Your task to perform on an android device: When is my next meeting? Image 0: 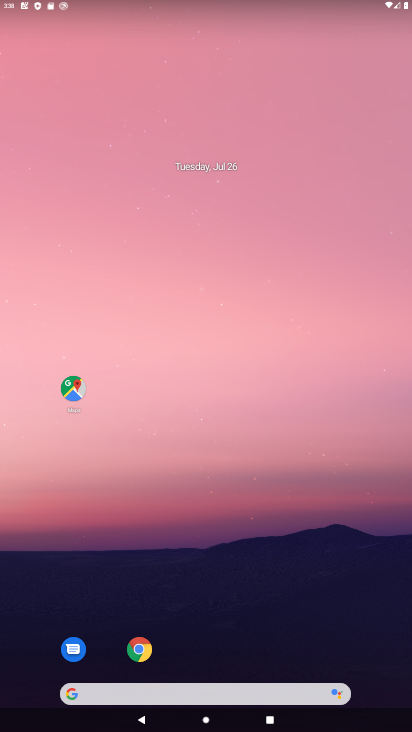
Step 0: press home button
Your task to perform on an android device: When is my next meeting? Image 1: 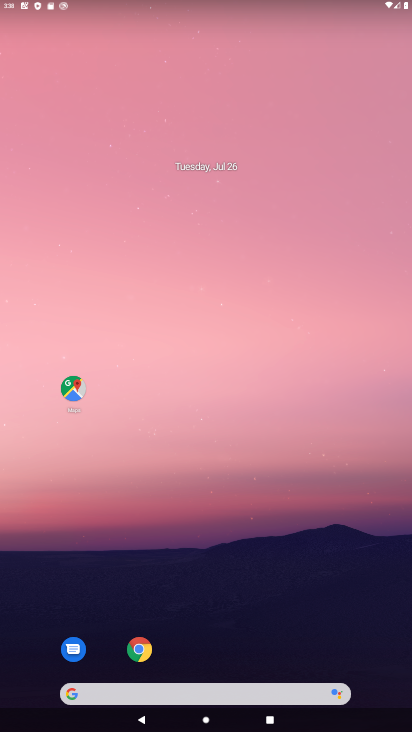
Step 1: drag from (207, 633) to (163, 130)
Your task to perform on an android device: When is my next meeting? Image 2: 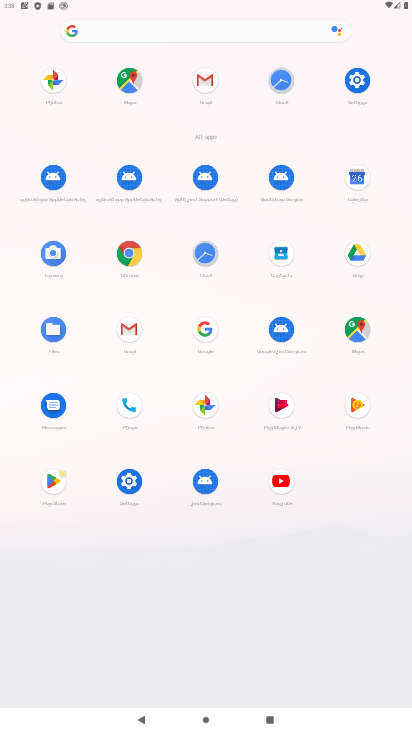
Step 2: click (358, 79)
Your task to perform on an android device: When is my next meeting? Image 3: 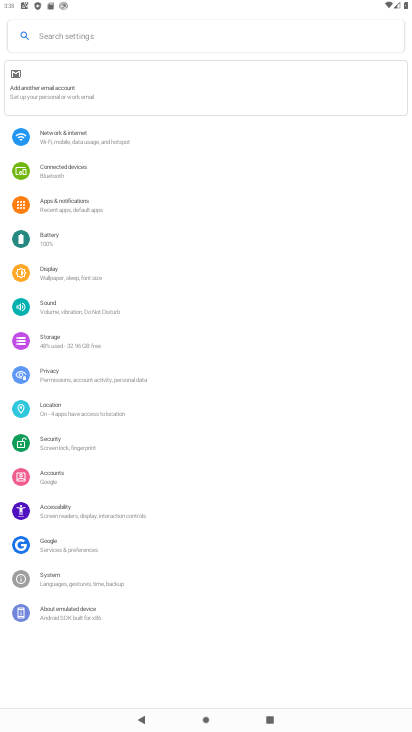
Step 3: click (60, 267)
Your task to perform on an android device: When is my next meeting? Image 4: 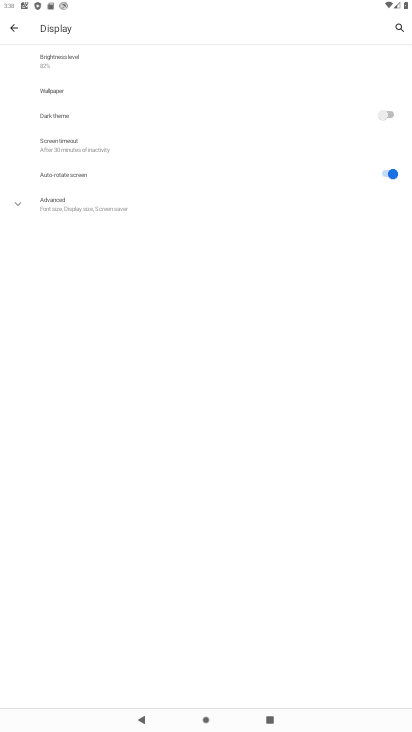
Step 4: click (82, 204)
Your task to perform on an android device: When is my next meeting? Image 5: 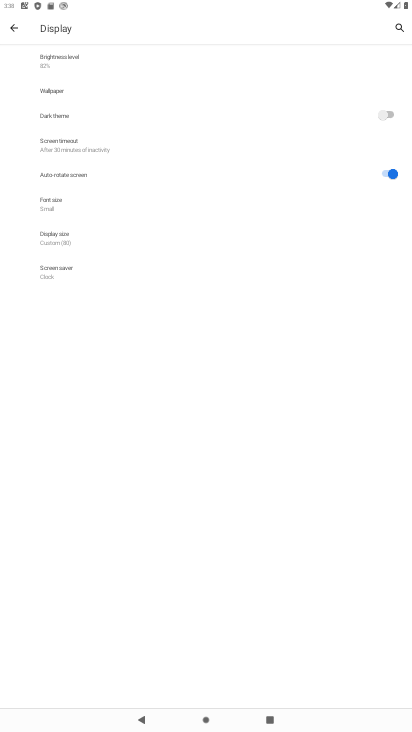
Step 5: click (90, 235)
Your task to perform on an android device: When is my next meeting? Image 6: 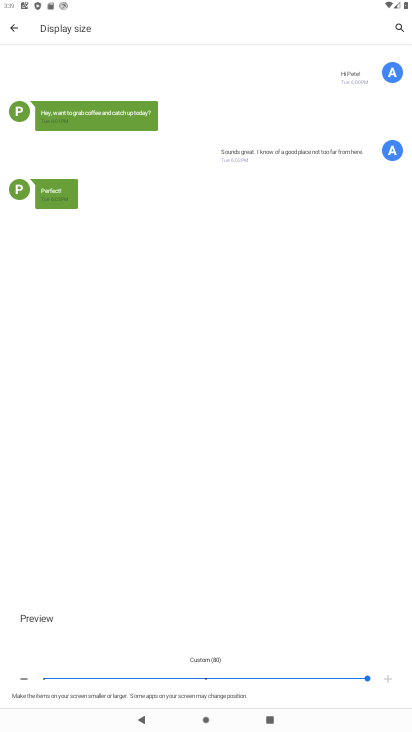
Step 6: click (212, 670)
Your task to perform on an android device: When is my next meeting? Image 7: 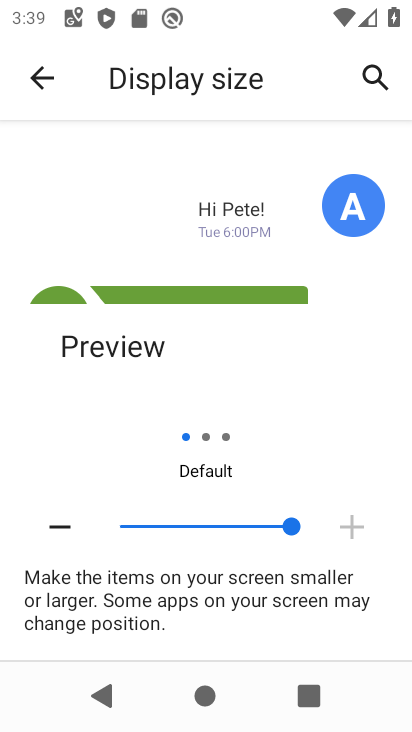
Step 7: press home button
Your task to perform on an android device: When is my next meeting? Image 8: 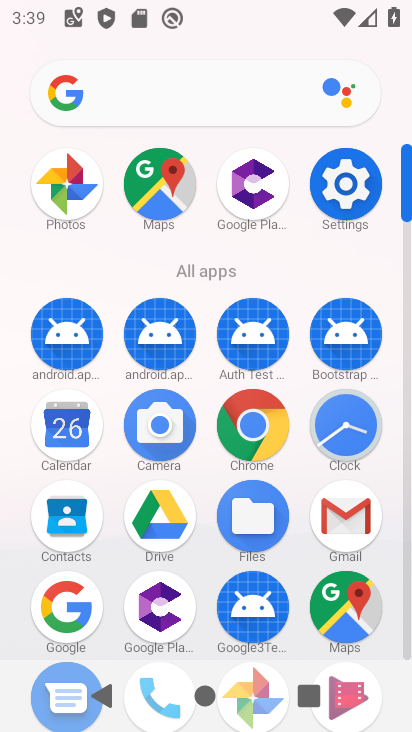
Step 8: click (72, 441)
Your task to perform on an android device: When is my next meeting? Image 9: 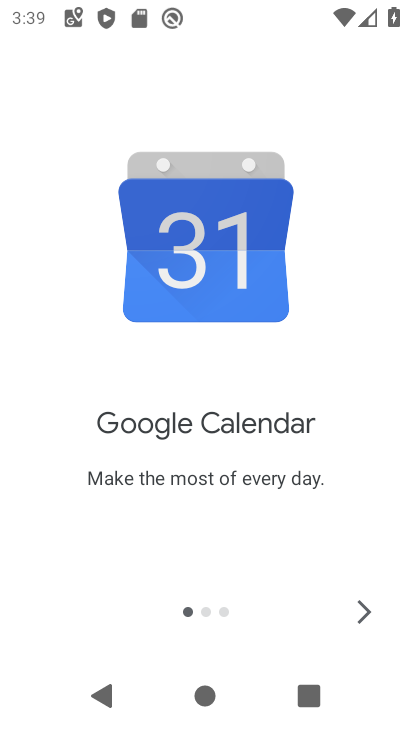
Step 9: click (363, 610)
Your task to perform on an android device: When is my next meeting? Image 10: 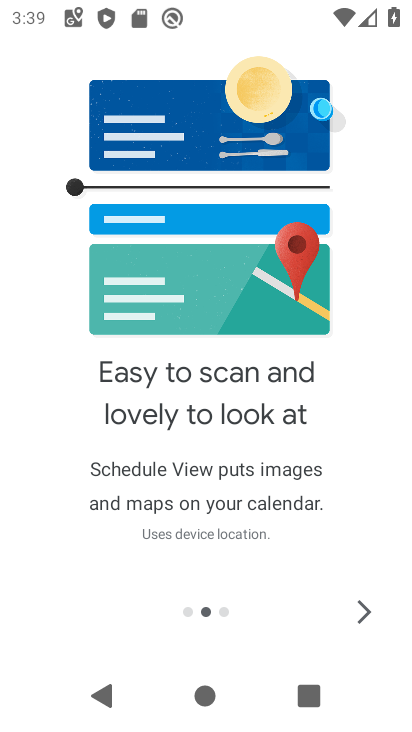
Step 10: click (363, 610)
Your task to perform on an android device: When is my next meeting? Image 11: 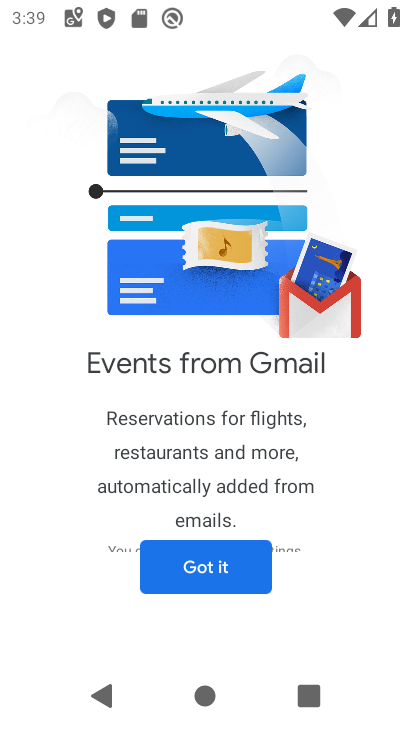
Step 11: click (235, 575)
Your task to perform on an android device: When is my next meeting? Image 12: 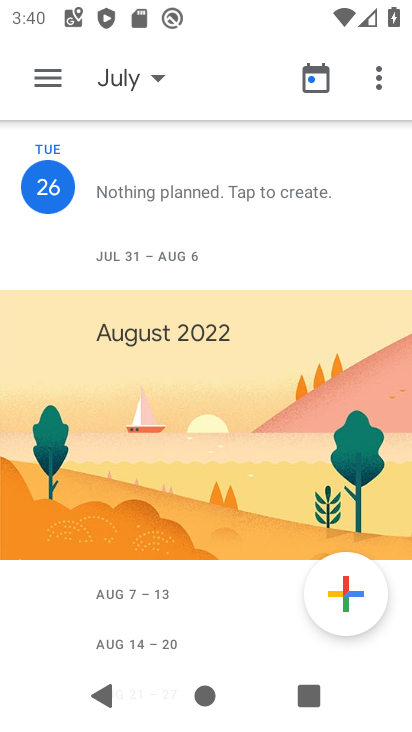
Step 12: click (48, 80)
Your task to perform on an android device: When is my next meeting? Image 13: 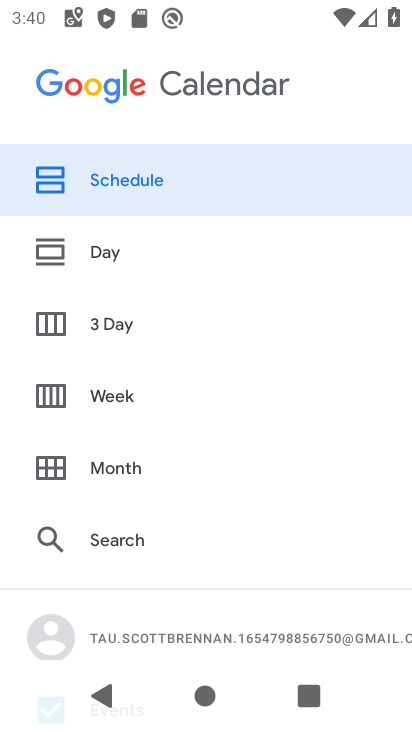
Step 13: click (104, 174)
Your task to perform on an android device: When is my next meeting? Image 14: 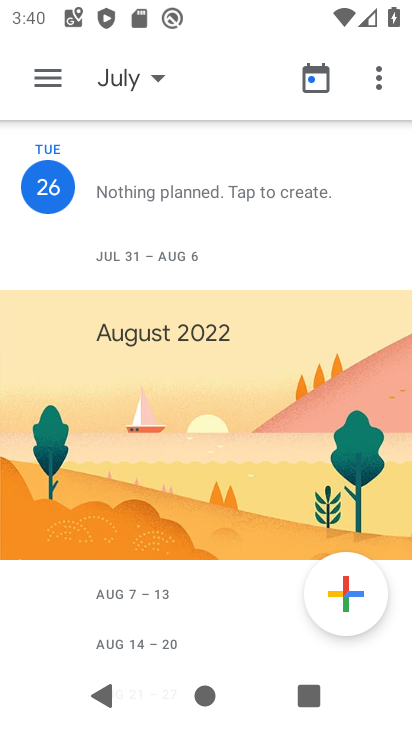
Step 14: task complete